Your task to perform on an android device: toggle translation in the chrome app Image 0: 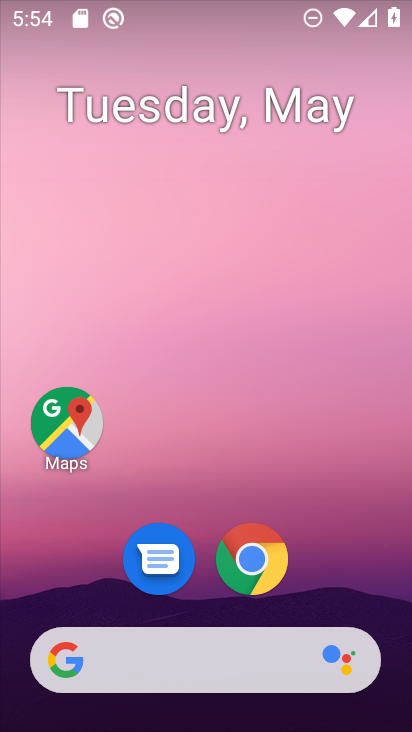
Step 0: click (243, 561)
Your task to perform on an android device: toggle translation in the chrome app Image 1: 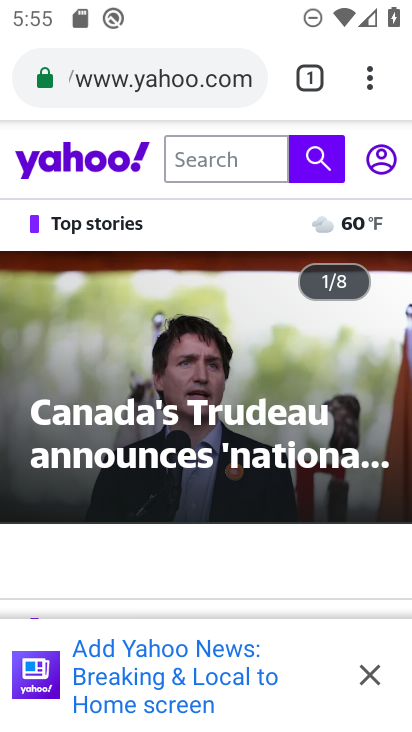
Step 1: click (366, 81)
Your task to perform on an android device: toggle translation in the chrome app Image 2: 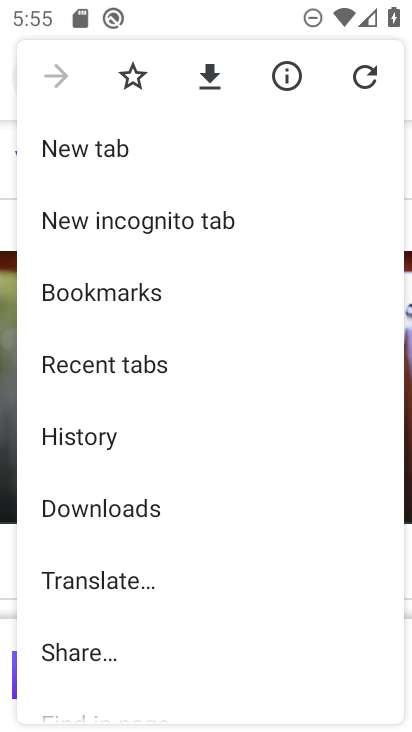
Step 2: drag from (242, 536) to (168, 388)
Your task to perform on an android device: toggle translation in the chrome app Image 3: 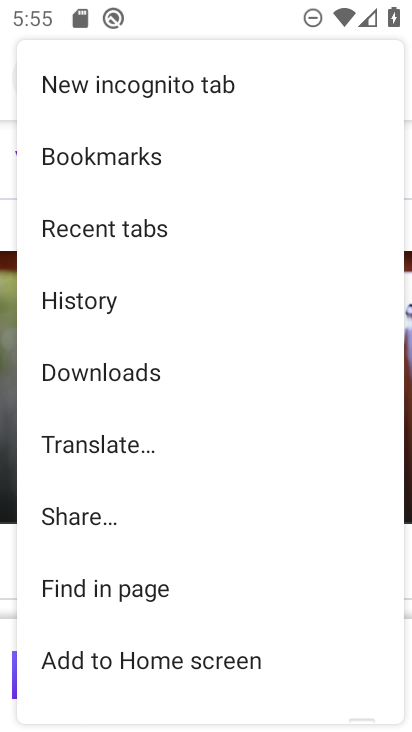
Step 3: drag from (176, 602) to (104, 430)
Your task to perform on an android device: toggle translation in the chrome app Image 4: 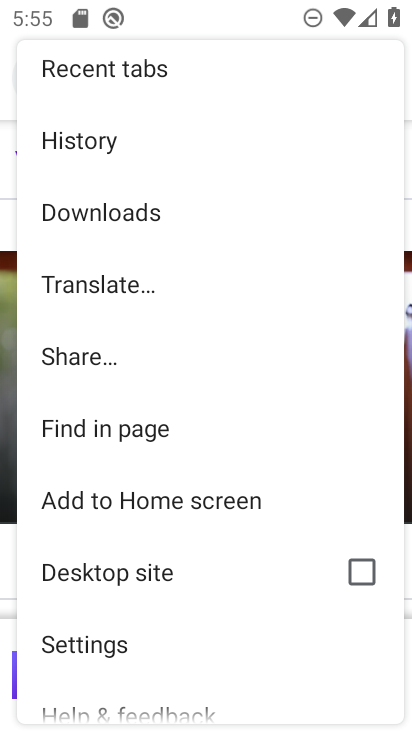
Step 4: click (88, 648)
Your task to perform on an android device: toggle translation in the chrome app Image 5: 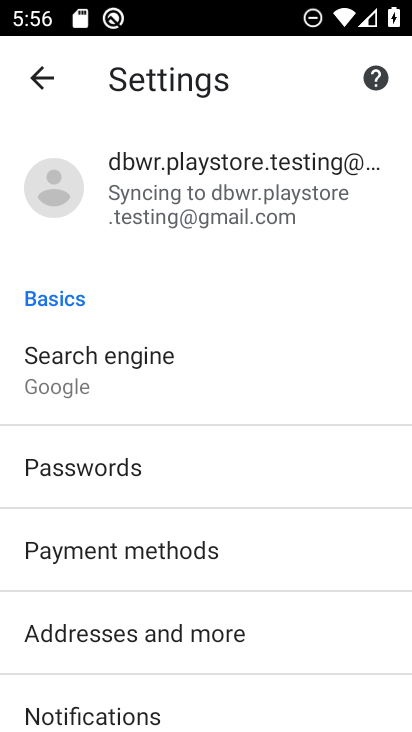
Step 5: drag from (128, 650) to (92, 558)
Your task to perform on an android device: toggle translation in the chrome app Image 6: 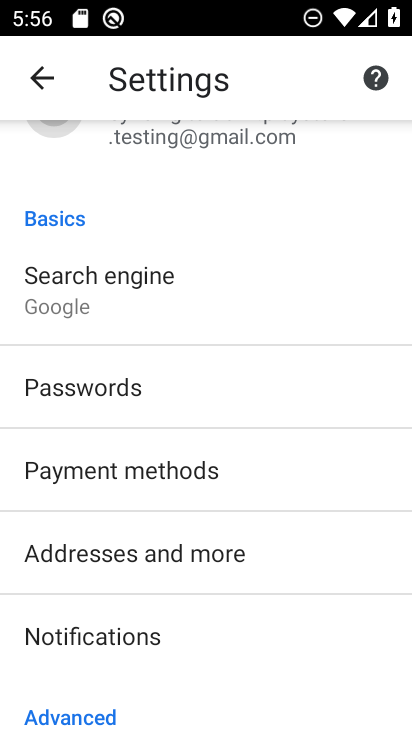
Step 6: drag from (156, 651) to (89, 478)
Your task to perform on an android device: toggle translation in the chrome app Image 7: 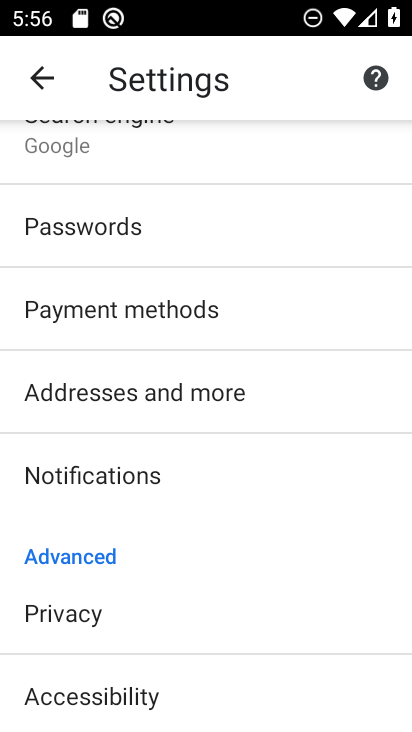
Step 7: drag from (229, 662) to (172, 445)
Your task to perform on an android device: toggle translation in the chrome app Image 8: 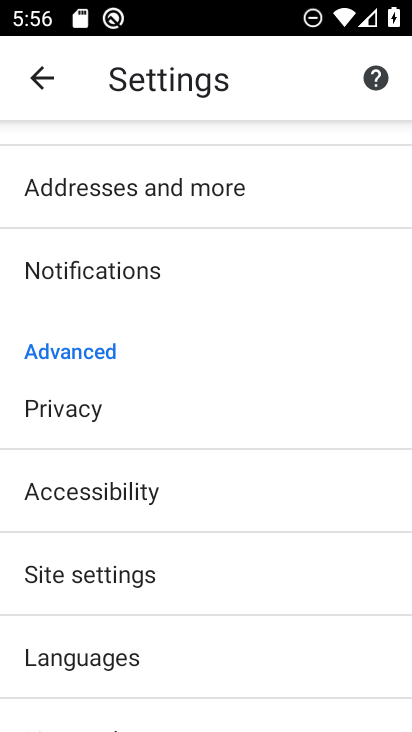
Step 8: drag from (263, 682) to (209, 546)
Your task to perform on an android device: toggle translation in the chrome app Image 9: 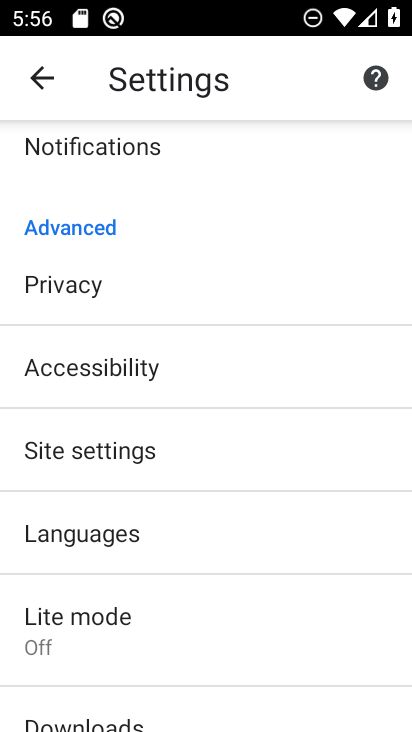
Step 9: drag from (226, 656) to (175, 493)
Your task to perform on an android device: toggle translation in the chrome app Image 10: 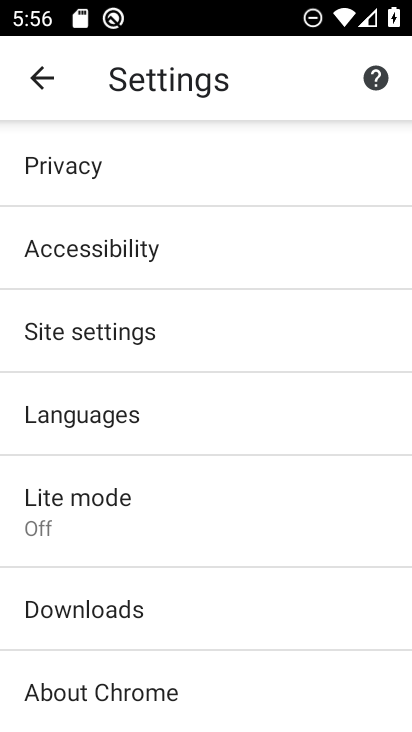
Step 10: drag from (221, 668) to (167, 549)
Your task to perform on an android device: toggle translation in the chrome app Image 11: 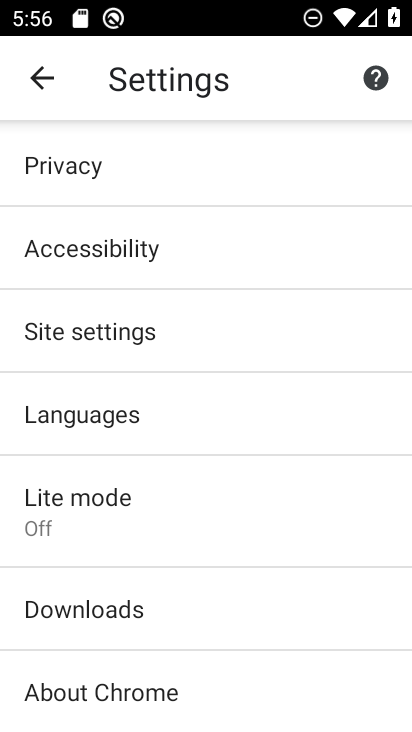
Step 11: click (186, 426)
Your task to perform on an android device: toggle translation in the chrome app Image 12: 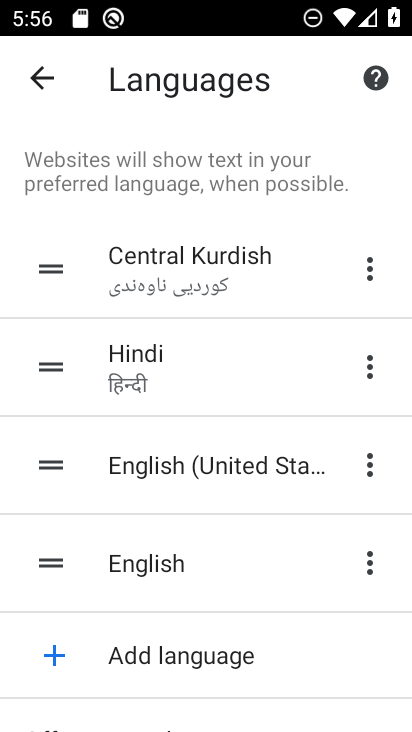
Step 12: drag from (275, 550) to (210, 374)
Your task to perform on an android device: toggle translation in the chrome app Image 13: 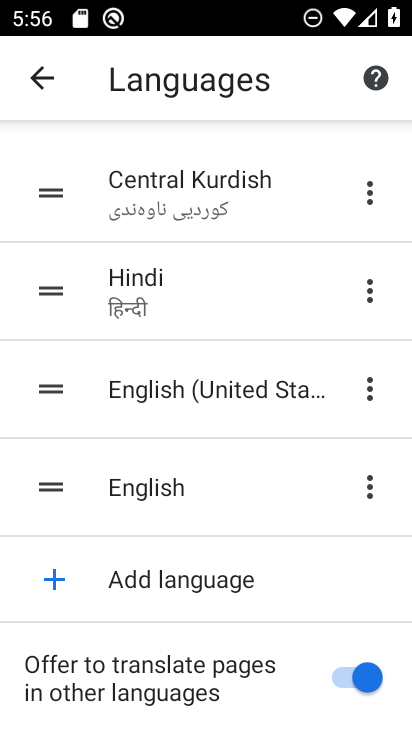
Step 13: click (340, 671)
Your task to perform on an android device: toggle translation in the chrome app Image 14: 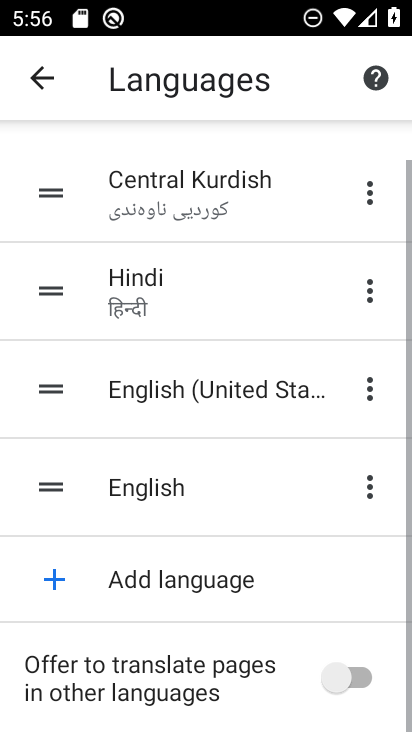
Step 14: task complete